Your task to perform on an android device: turn on airplane mode Image 0: 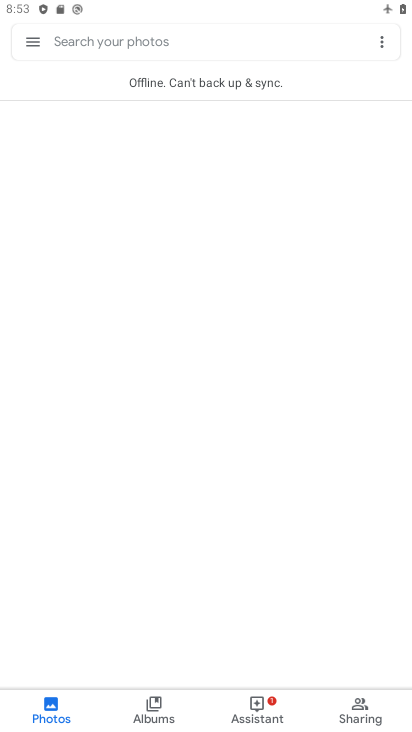
Step 0: press home button
Your task to perform on an android device: turn on airplane mode Image 1: 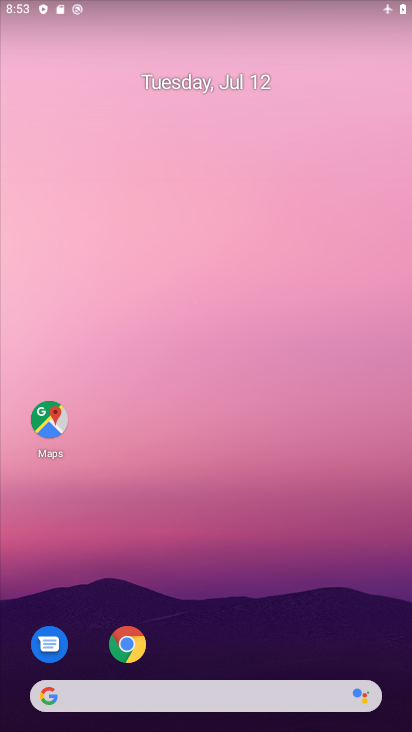
Step 1: drag from (200, 650) to (231, 182)
Your task to perform on an android device: turn on airplane mode Image 2: 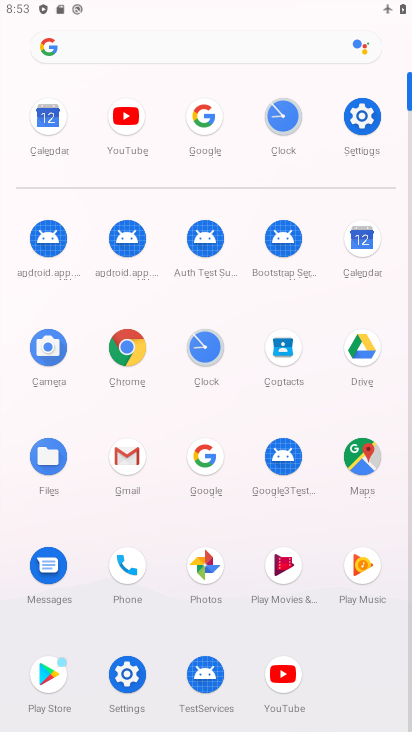
Step 2: click (358, 105)
Your task to perform on an android device: turn on airplane mode Image 3: 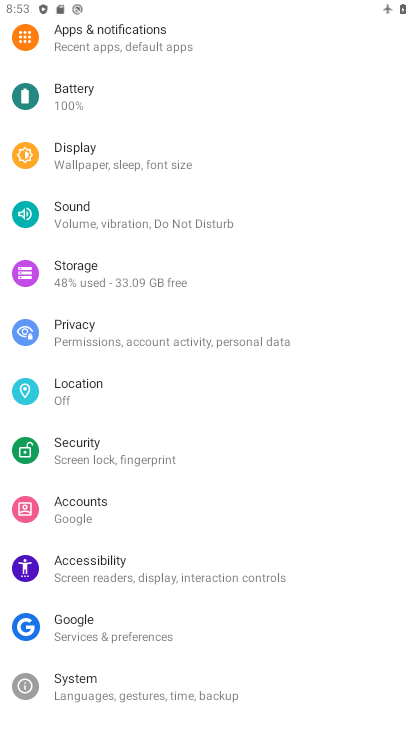
Step 3: drag from (168, 121) to (179, 439)
Your task to perform on an android device: turn on airplane mode Image 4: 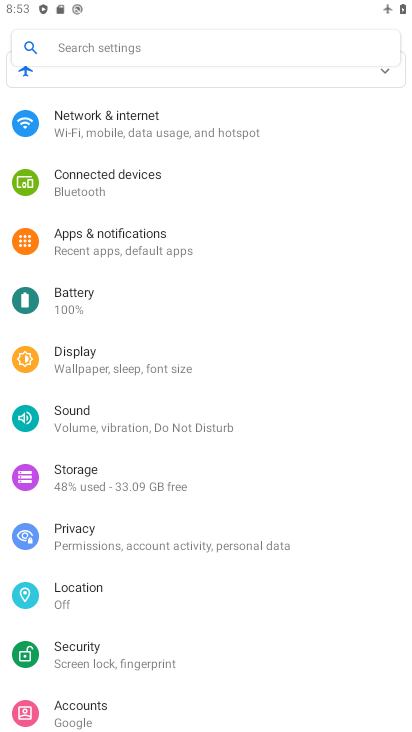
Step 4: click (195, 149)
Your task to perform on an android device: turn on airplane mode Image 5: 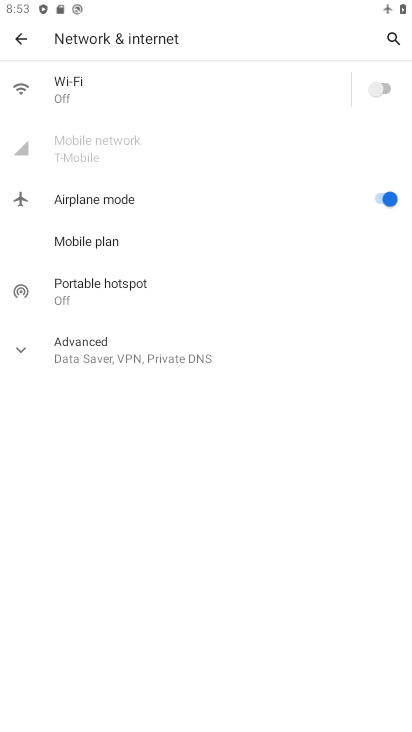
Step 5: task complete